Your task to perform on an android device: Search for runner rugs on Crate & Barrel Image 0: 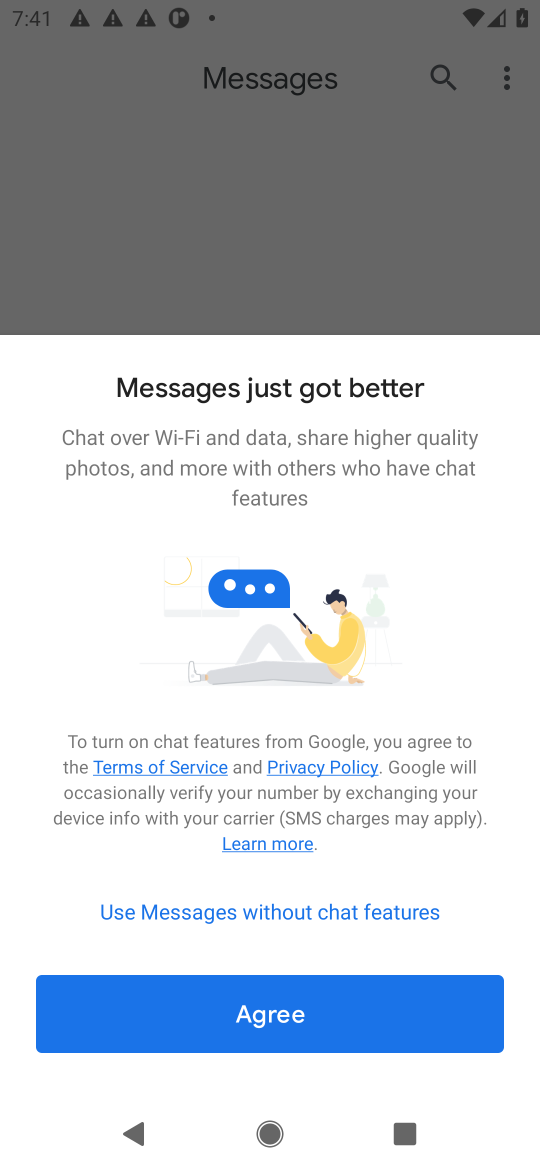
Step 0: press home button
Your task to perform on an android device: Search for runner rugs on Crate & Barrel Image 1: 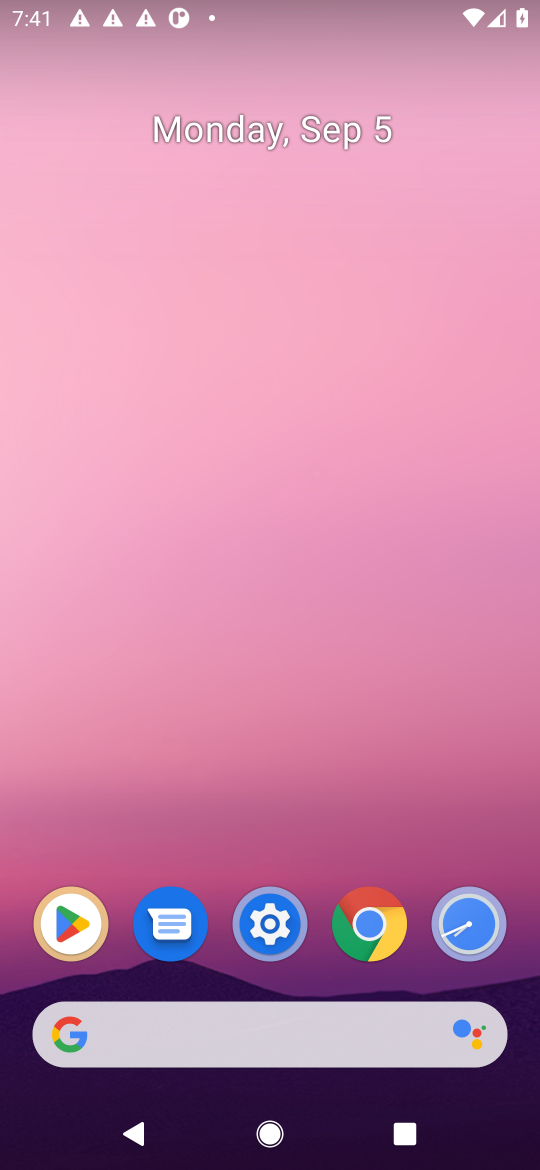
Step 1: click (387, 1031)
Your task to perform on an android device: Search for runner rugs on Crate & Barrel Image 2: 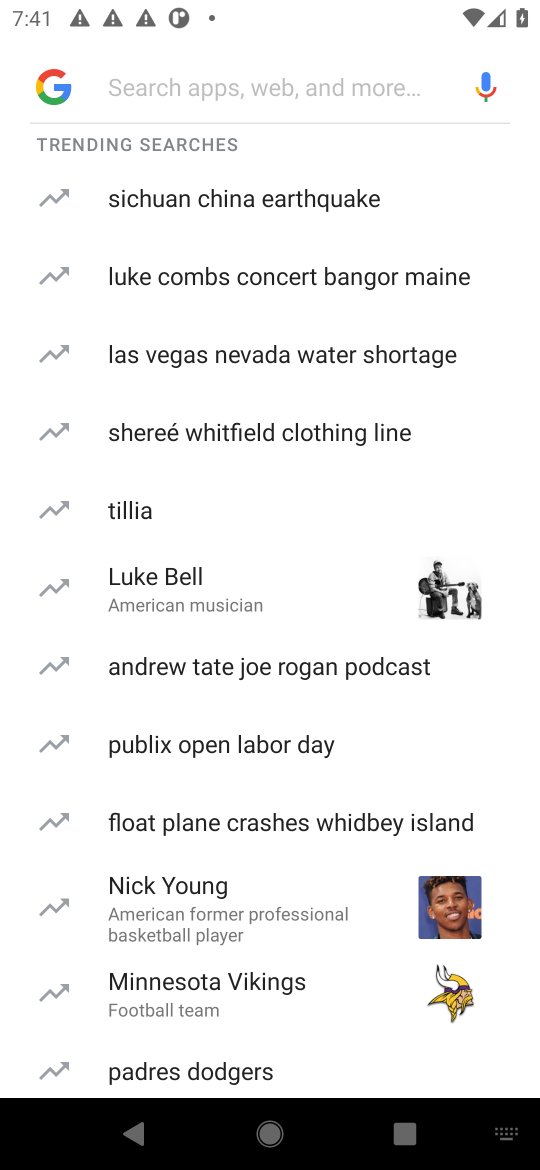
Step 2: press enter
Your task to perform on an android device: Search for runner rugs on Crate & Barrel Image 3: 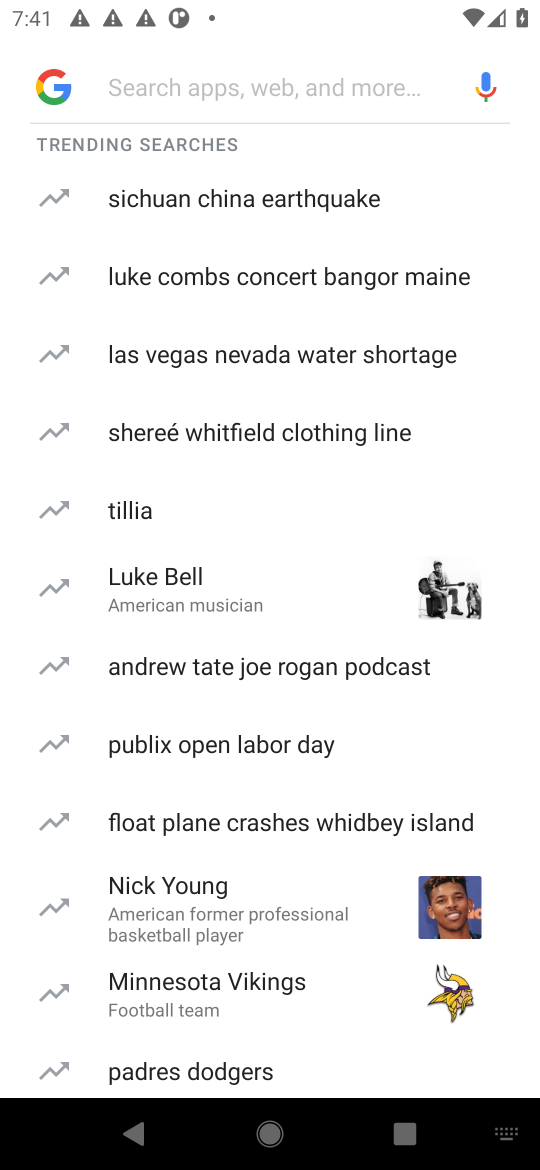
Step 3: type "crate barrel"
Your task to perform on an android device: Search for runner rugs on Crate & Barrel Image 4: 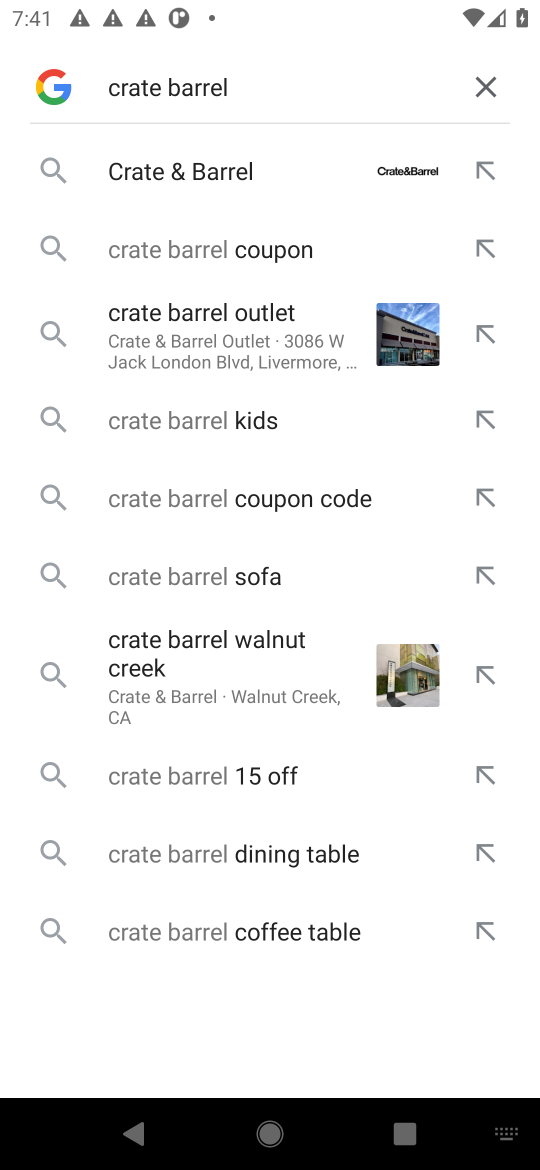
Step 4: click (193, 167)
Your task to perform on an android device: Search for runner rugs on Crate & Barrel Image 5: 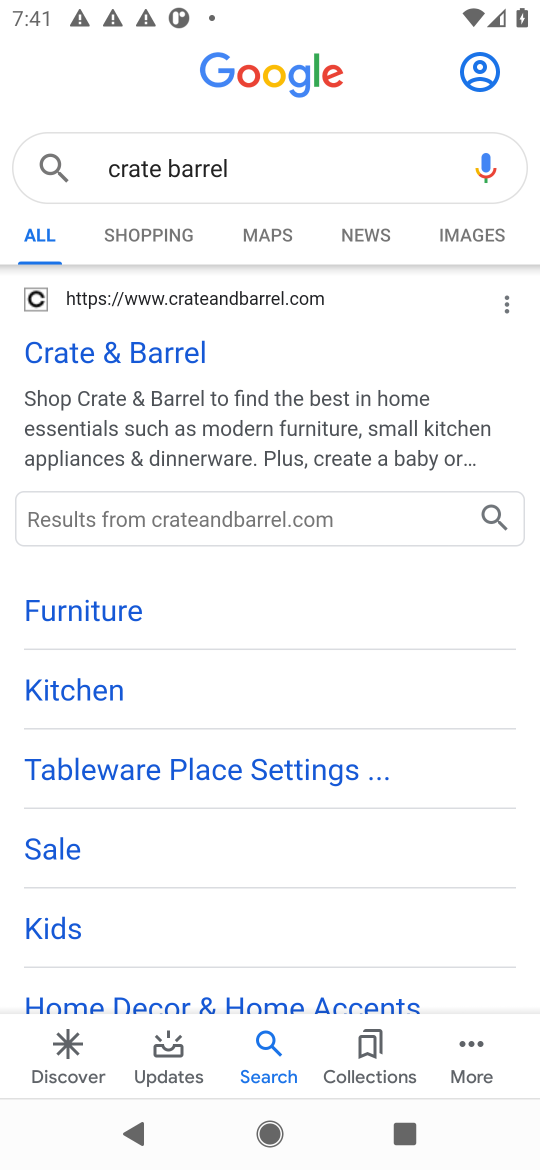
Step 5: click (146, 345)
Your task to perform on an android device: Search for runner rugs on Crate & Barrel Image 6: 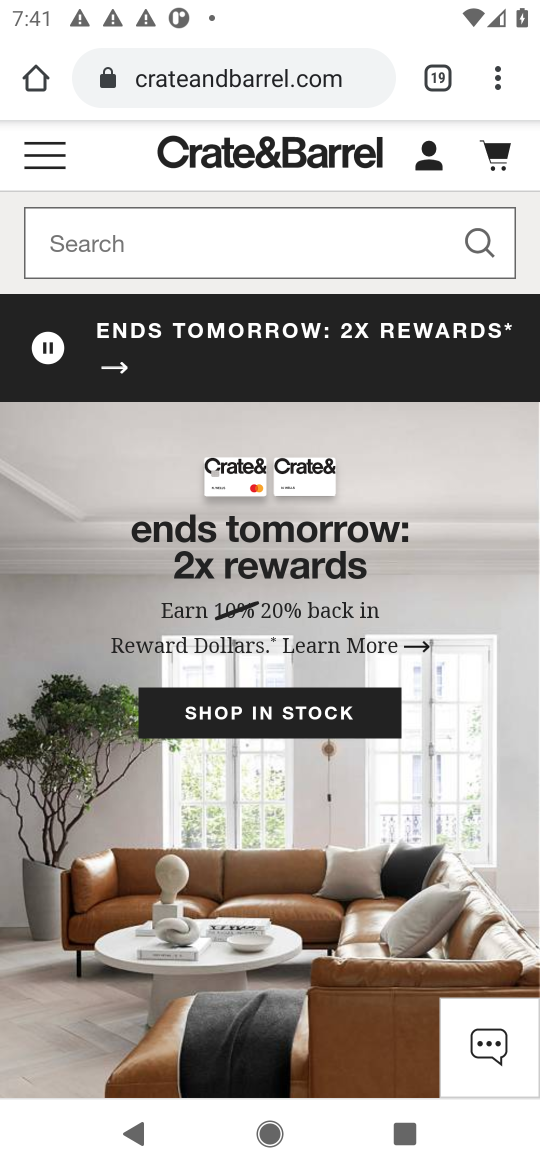
Step 6: click (234, 228)
Your task to perform on an android device: Search for runner rugs on Crate & Barrel Image 7: 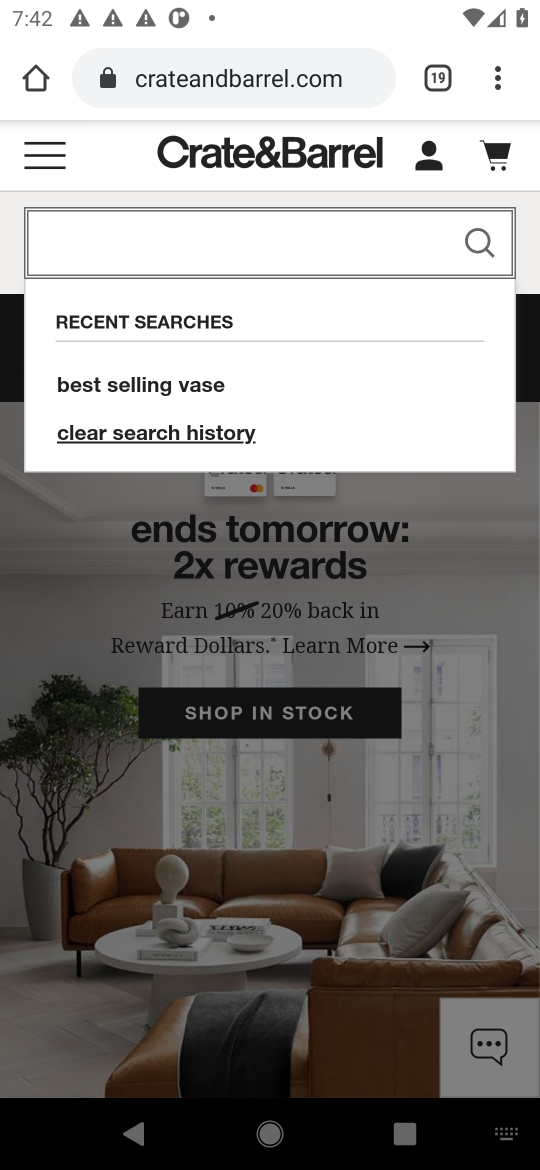
Step 7: press enter
Your task to perform on an android device: Search for runner rugs on Crate & Barrel Image 8: 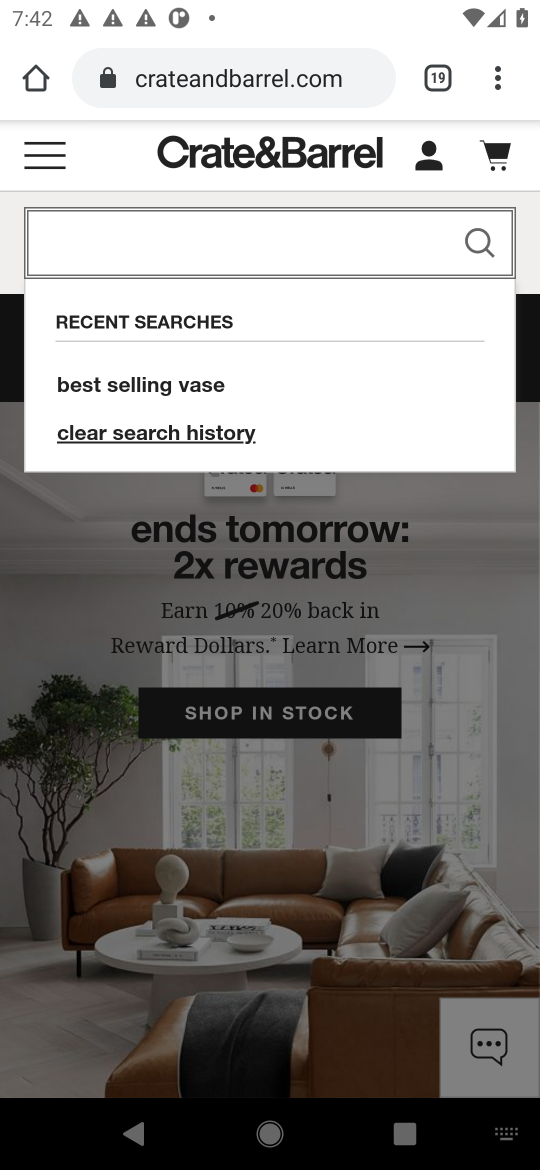
Step 8: type "runner rugs"
Your task to perform on an android device: Search for runner rugs on Crate & Barrel Image 9: 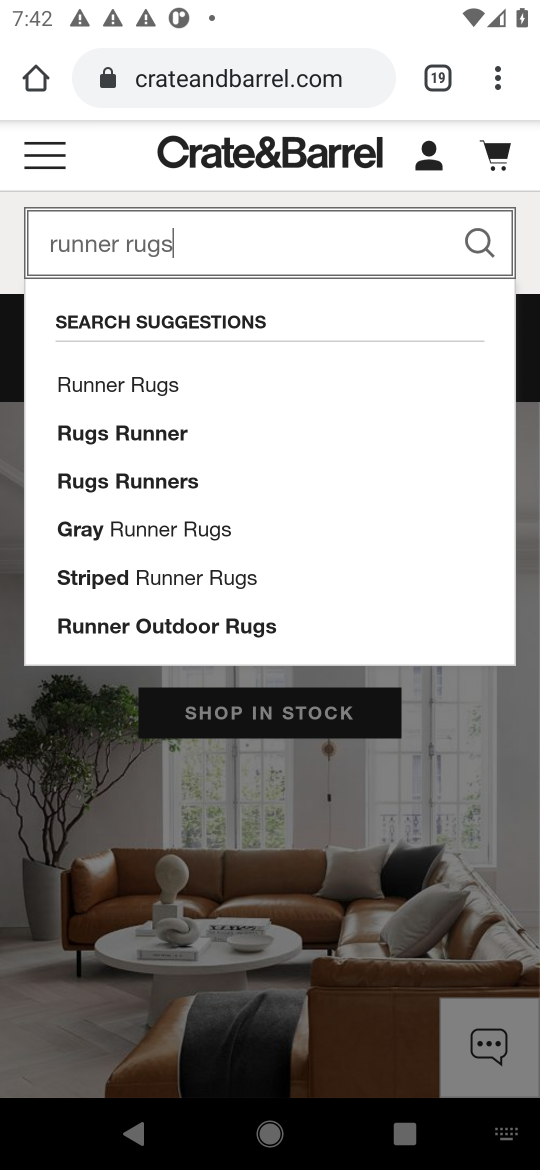
Step 9: click (146, 382)
Your task to perform on an android device: Search for runner rugs on Crate & Barrel Image 10: 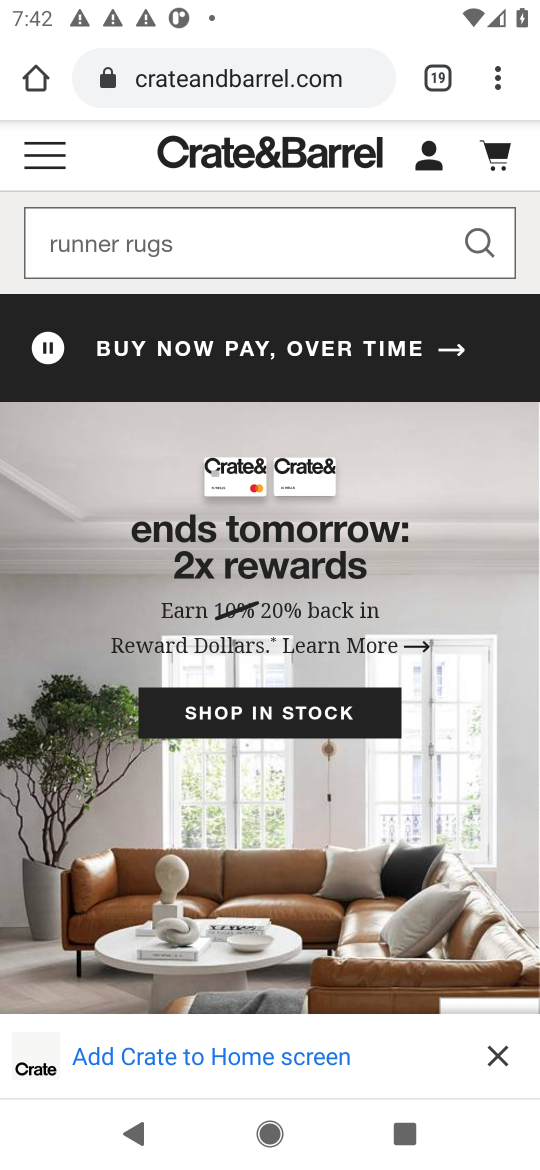
Step 10: click (481, 237)
Your task to perform on an android device: Search for runner rugs on Crate & Barrel Image 11: 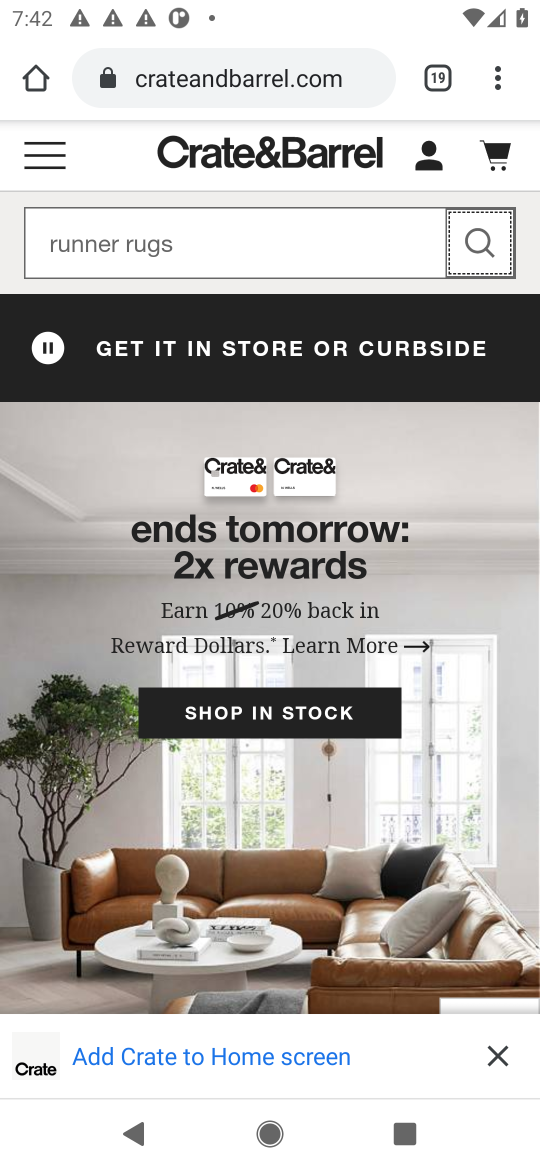
Step 11: click (479, 244)
Your task to perform on an android device: Search for runner rugs on Crate & Barrel Image 12: 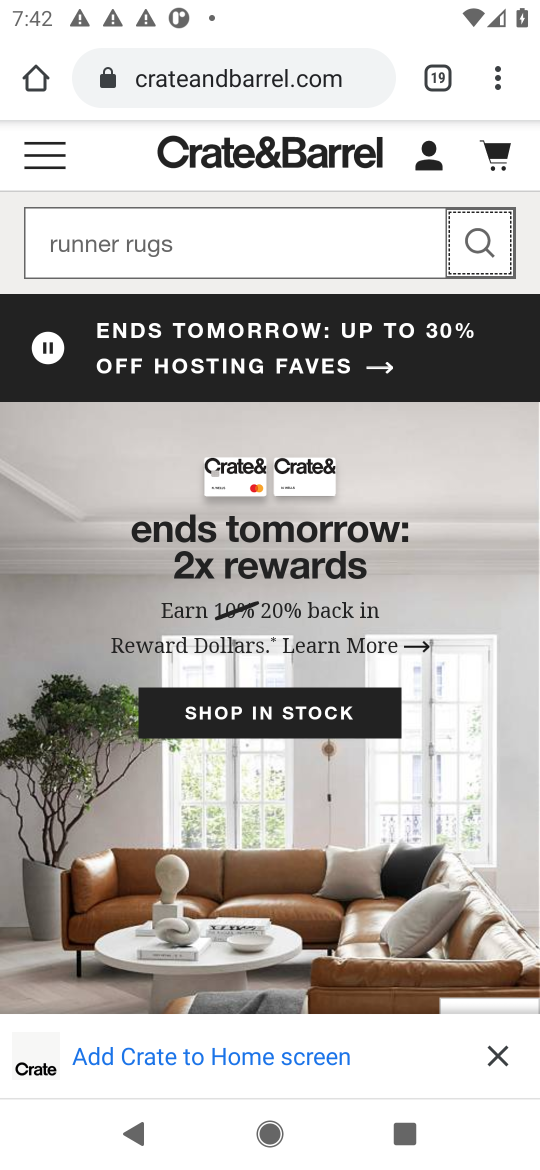
Step 12: click (474, 229)
Your task to perform on an android device: Search for runner rugs on Crate & Barrel Image 13: 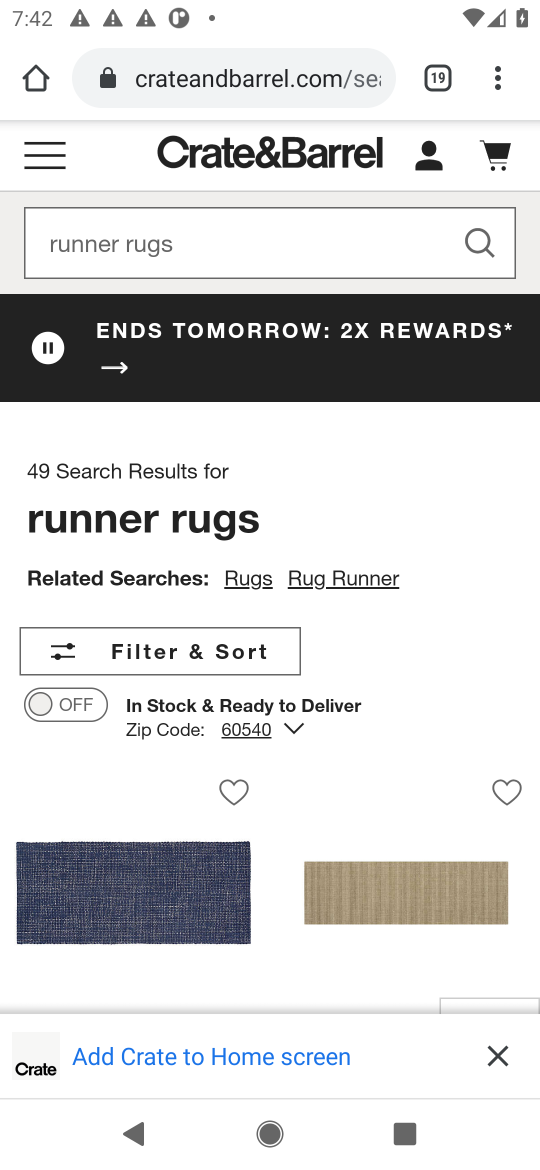
Step 13: task complete